Your task to perform on an android device: Open Google Chrome and open the bookmarks view Image 0: 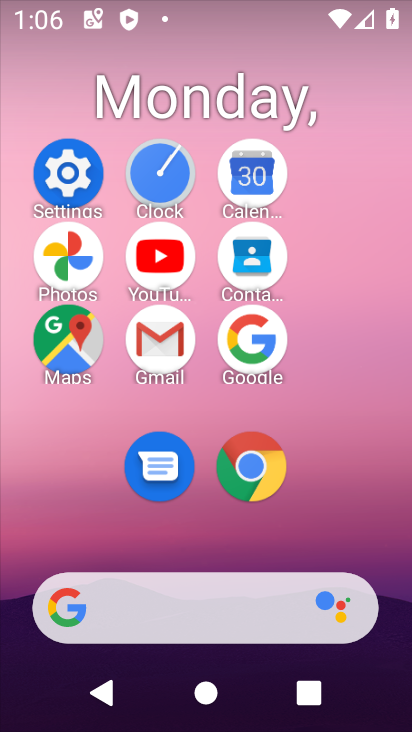
Step 0: click (255, 470)
Your task to perform on an android device: Open Google Chrome and open the bookmarks view Image 1: 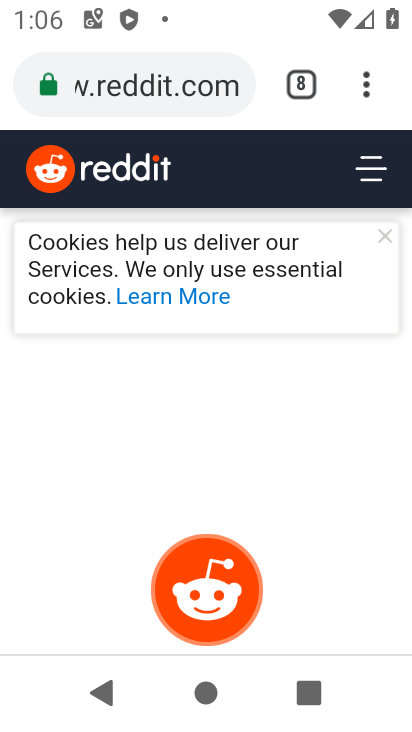
Step 1: click (367, 70)
Your task to perform on an android device: Open Google Chrome and open the bookmarks view Image 2: 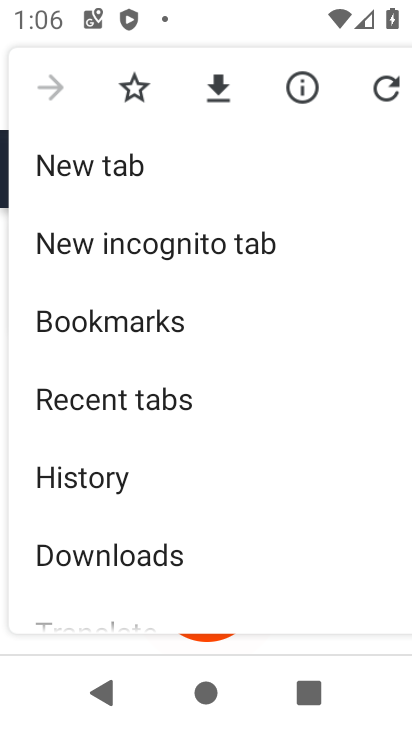
Step 2: click (206, 322)
Your task to perform on an android device: Open Google Chrome and open the bookmarks view Image 3: 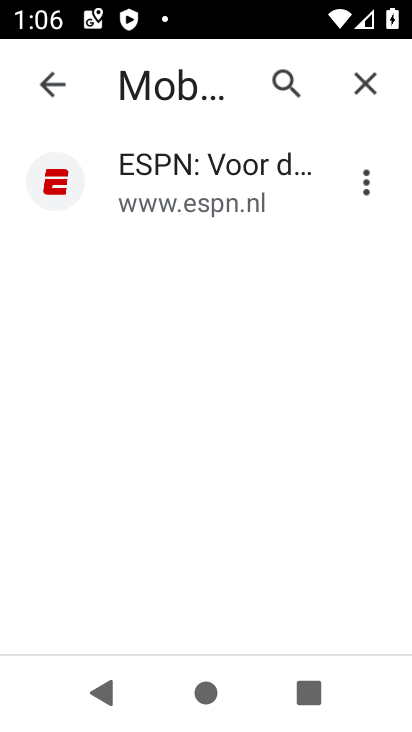
Step 3: task complete